Your task to perform on an android device: Search for seafood restaurants on Google Maps Image 0: 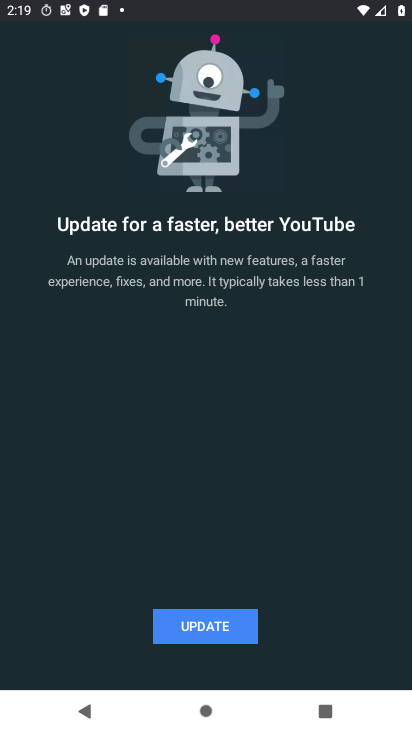
Step 0: press home button
Your task to perform on an android device: Search for seafood restaurants on Google Maps Image 1: 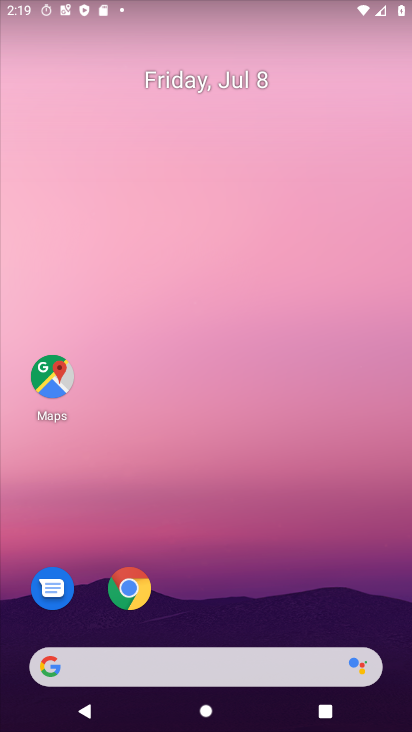
Step 1: drag from (227, 615) to (239, 109)
Your task to perform on an android device: Search for seafood restaurants on Google Maps Image 2: 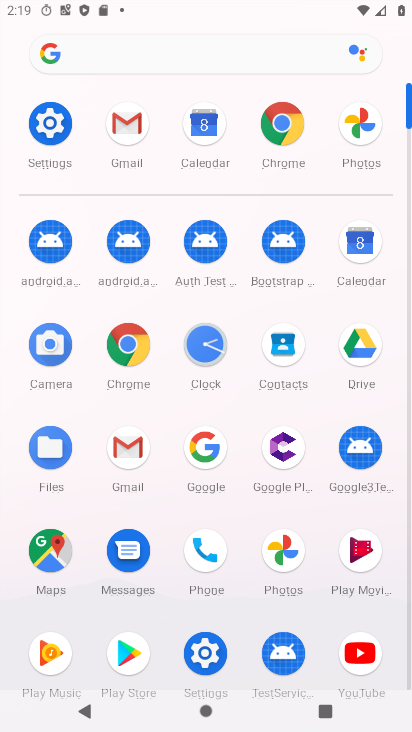
Step 2: click (48, 556)
Your task to perform on an android device: Search for seafood restaurants on Google Maps Image 3: 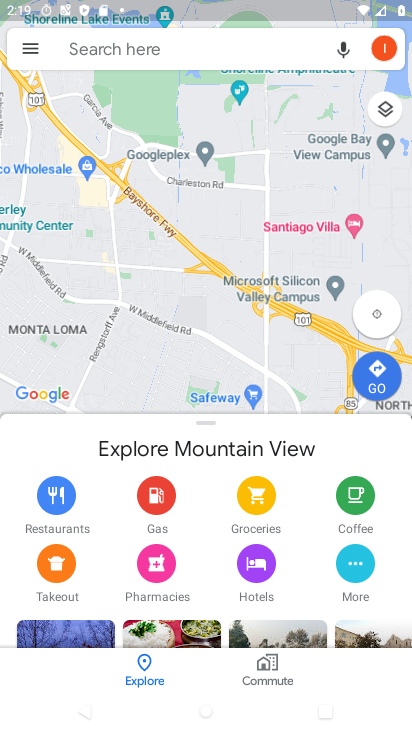
Step 3: click (164, 50)
Your task to perform on an android device: Search for seafood restaurants on Google Maps Image 4: 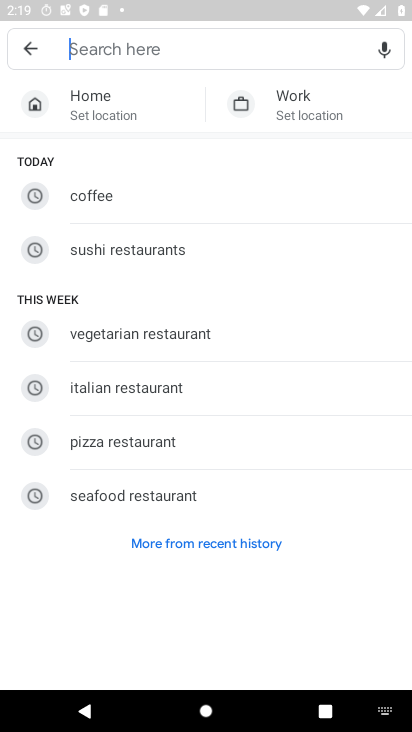
Step 4: click (134, 494)
Your task to perform on an android device: Search for seafood restaurants on Google Maps Image 5: 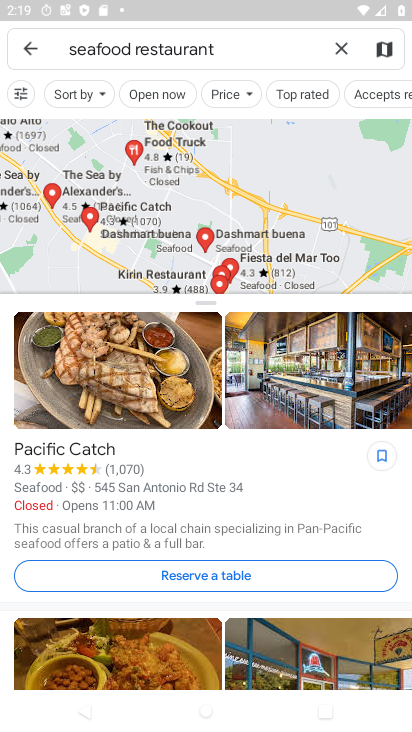
Step 5: task complete